Your task to perform on an android device: all mails in gmail Image 0: 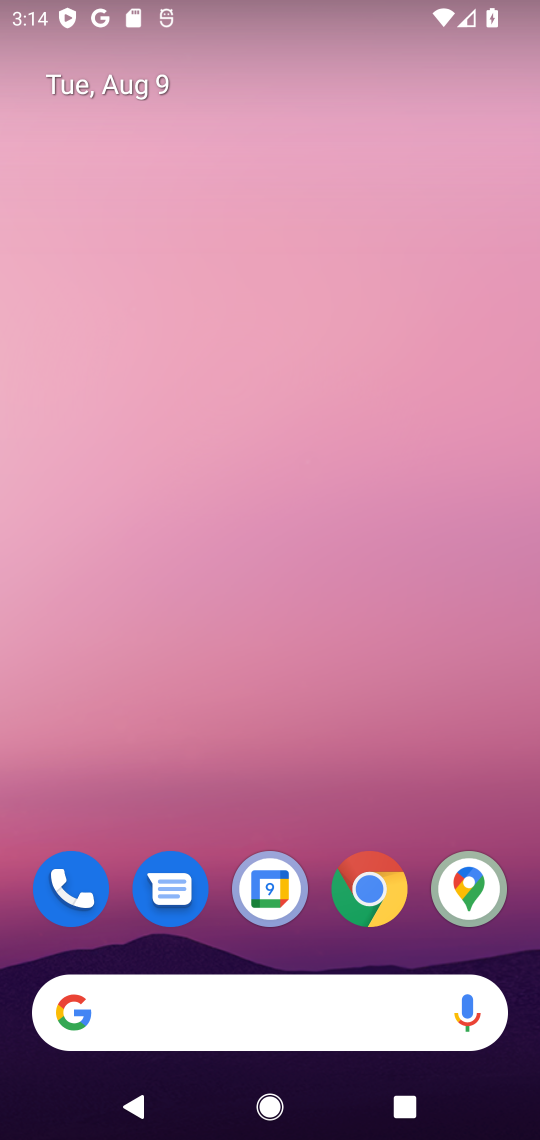
Step 0: drag from (331, 785) to (344, 0)
Your task to perform on an android device: all mails in gmail Image 1: 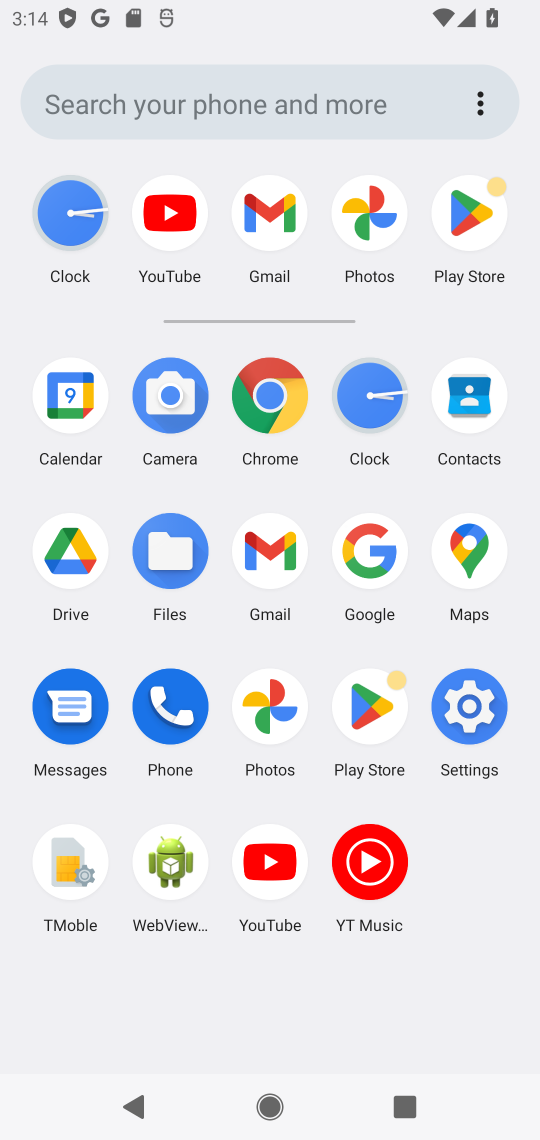
Step 1: click (284, 204)
Your task to perform on an android device: all mails in gmail Image 2: 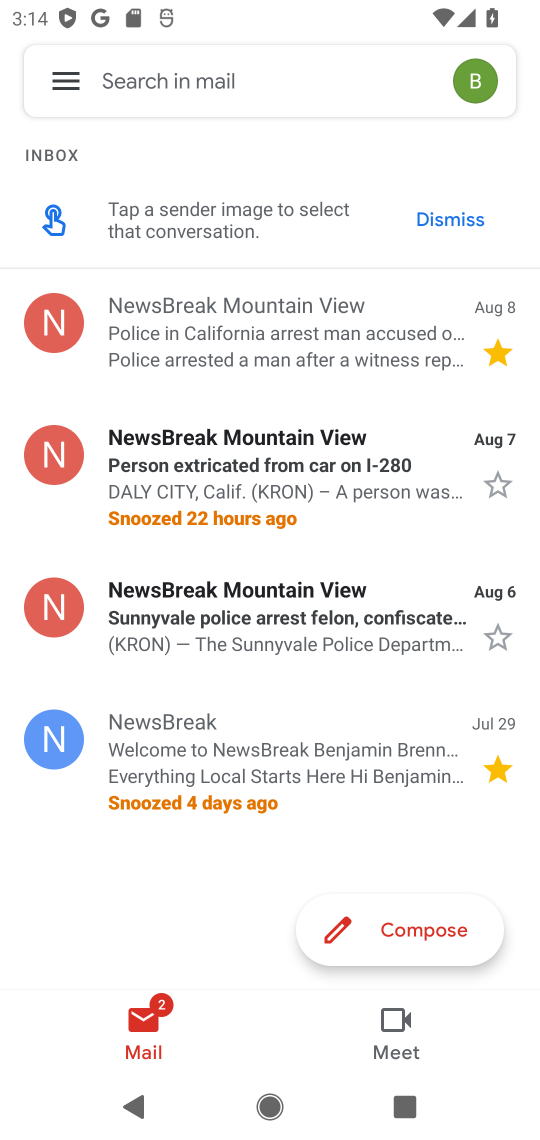
Step 2: click (70, 81)
Your task to perform on an android device: all mails in gmail Image 3: 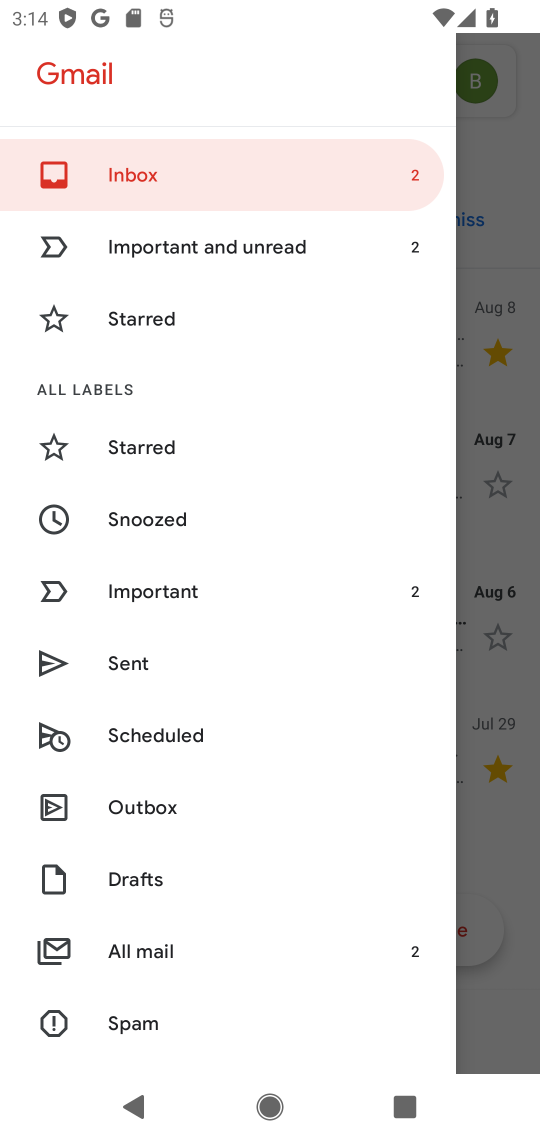
Step 3: click (152, 940)
Your task to perform on an android device: all mails in gmail Image 4: 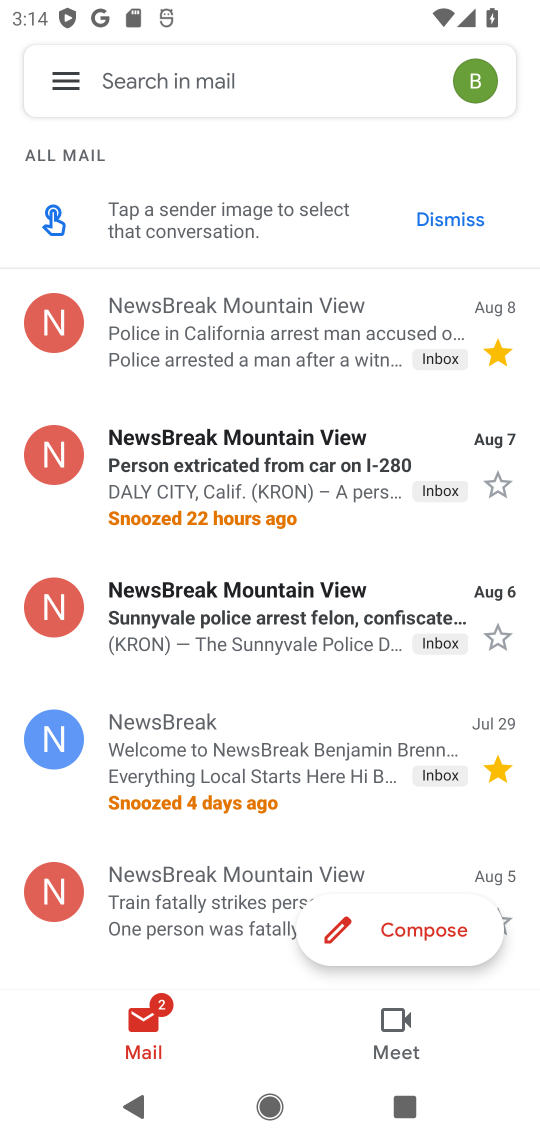
Step 4: task complete